Your task to perform on an android device: Search for Mexican restaurants on Maps Image 0: 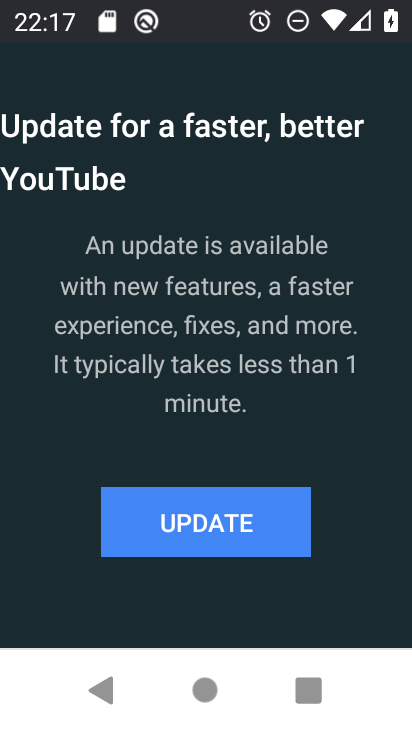
Step 0: press home button
Your task to perform on an android device: Search for Mexican restaurants on Maps Image 1: 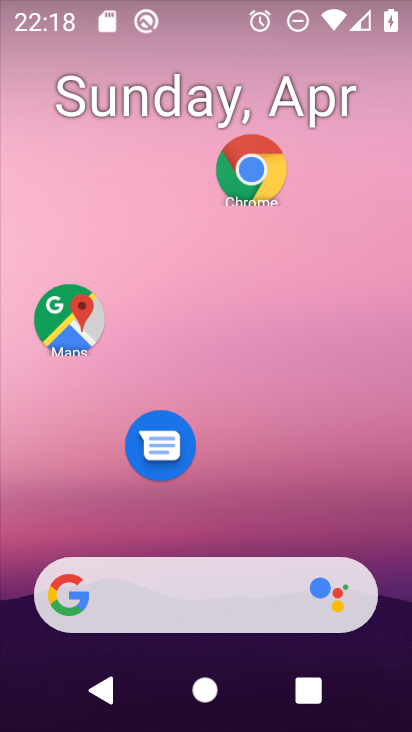
Step 1: click (68, 325)
Your task to perform on an android device: Search for Mexican restaurants on Maps Image 2: 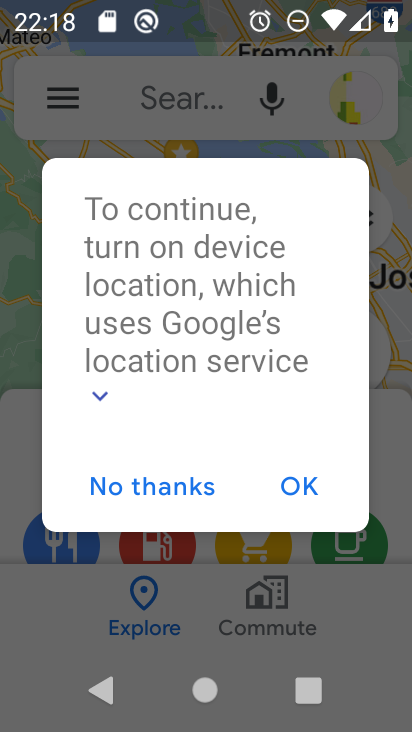
Step 2: click (301, 479)
Your task to perform on an android device: Search for Mexican restaurants on Maps Image 3: 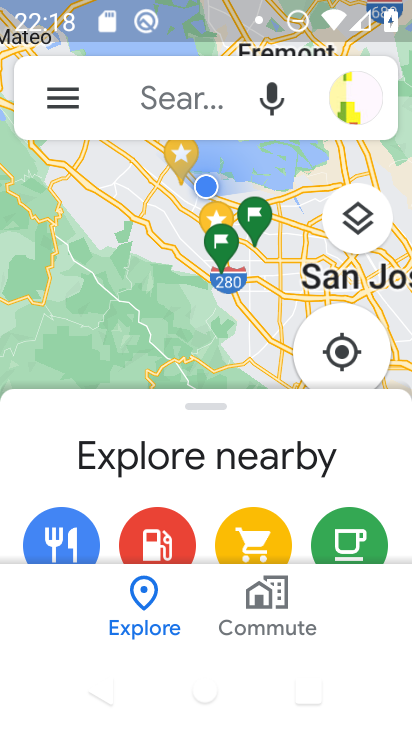
Step 3: click (199, 91)
Your task to perform on an android device: Search for Mexican restaurants on Maps Image 4: 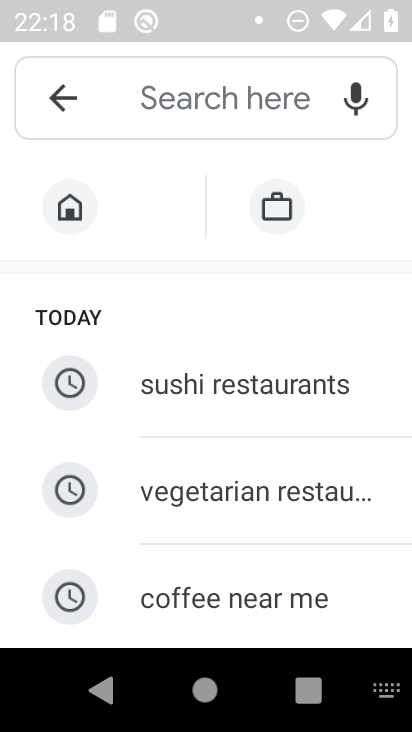
Step 4: type "mexican"
Your task to perform on an android device: Search for Mexican restaurants on Maps Image 5: 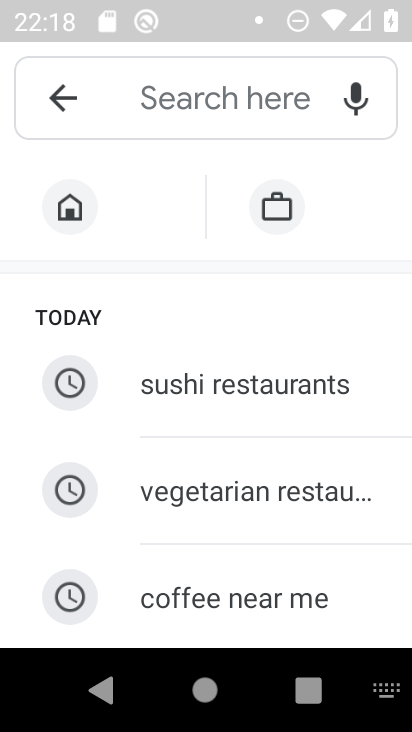
Step 5: drag from (313, 189) to (316, 124)
Your task to perform on an android device: Search for Mexican restaurants on Maps Image 6: 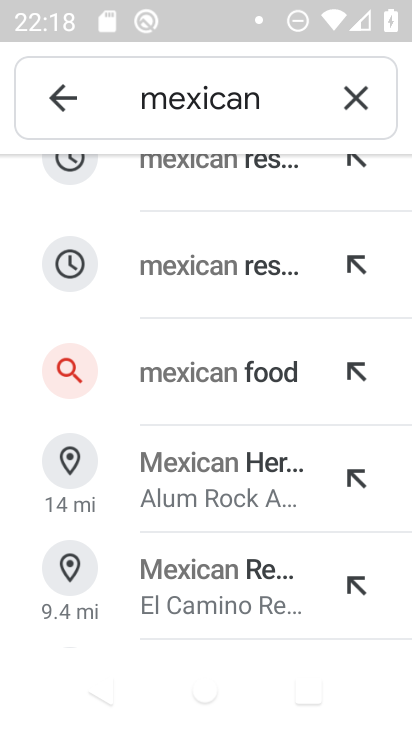
Step 6: click (205, 173)
Your task to perform on an android device: Search for Mexican restaurants on Maps Image 7: 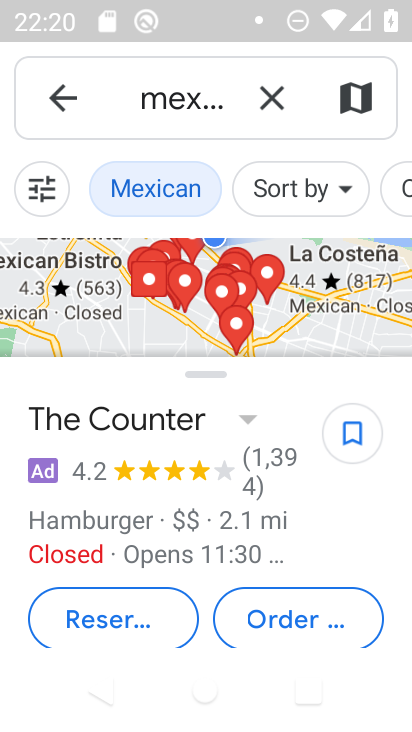
Step 7: task complete